Your task to perform on an android device: open chrome and create a bookmark for the current page Image 0: 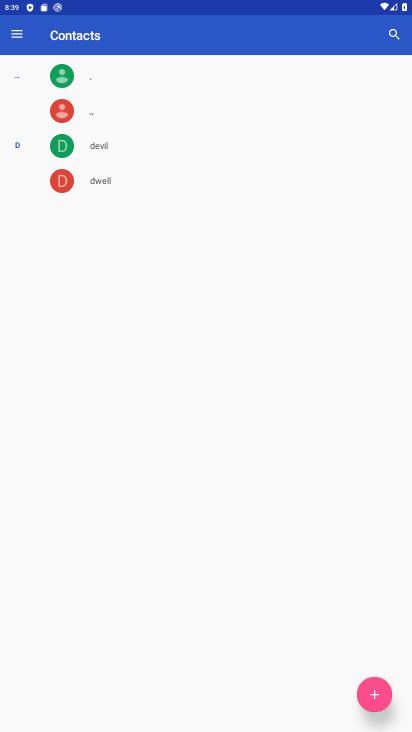
Step 0: press home button
Your task to perform on an android device: open chrome and create a bookmark for the current page Image 1: 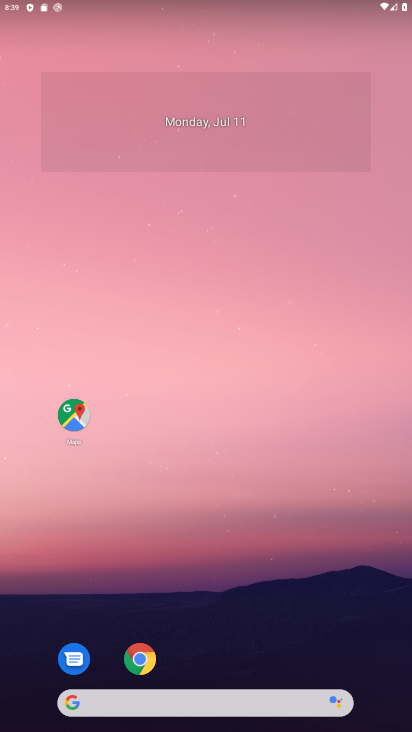
Step 1: click (132, 650)
Your task to perform on an android device: open chrome and create a bookmark for the current page Image 2: 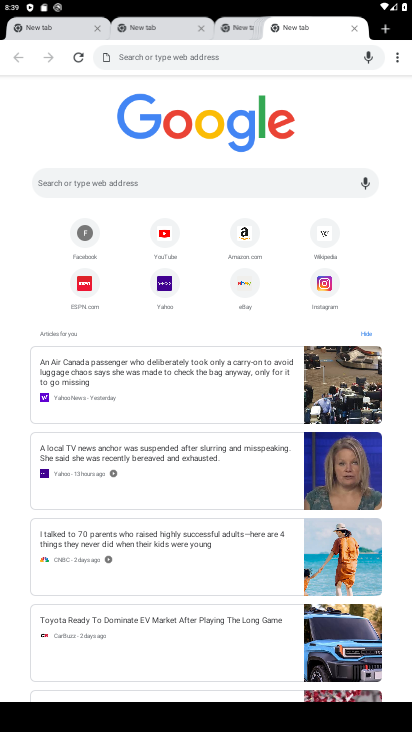
Step 2: click (390, 55)
Your task to perform on an android device: open chrome and create a bookmark for the current page Image 3: 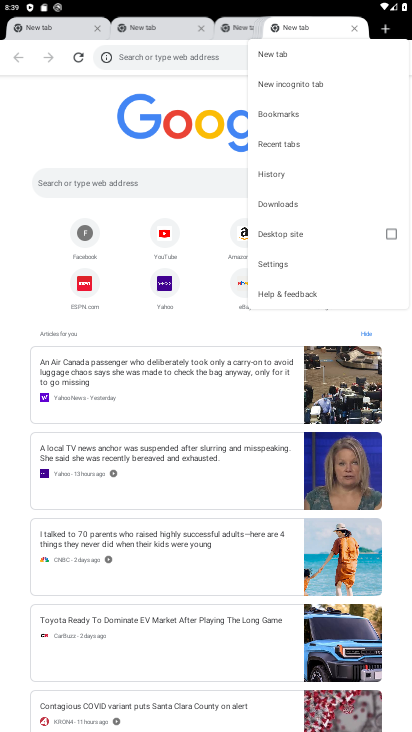
Step 3: click (284, 118)
Your task to perform on an android device: open chrome and create a bookmark for the current page Image 4: 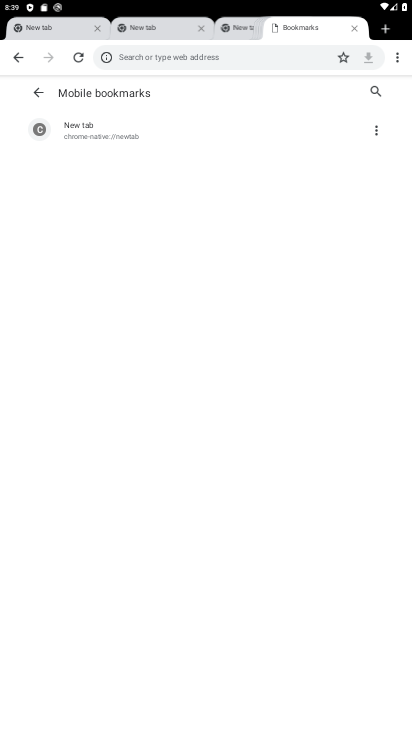
Step 4: click (348, 55)
Your task to perform on an android device: open chrome and create a bookmark for the current page Image 5: 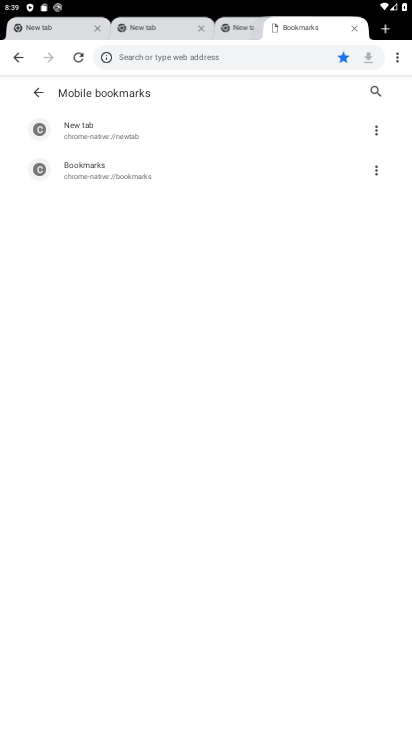
Step 5: task complete